Your task to perform on an android device: Open Google Chrome and open the bookmarks view Image 0: 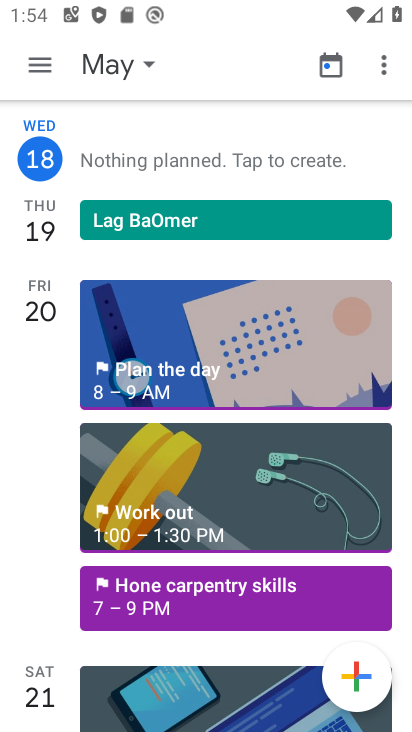
Step 0: press home button
Your task to perform on an android device: Open Google Chrome and open the bookmarks view Image 1: 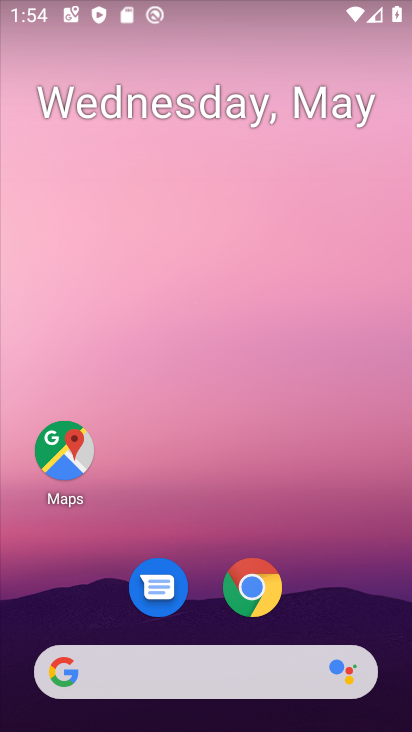
Step 1: click (267, 606)
Your task to perform on an android device: Open Google Chrome and open the bookmarks view Image 2: 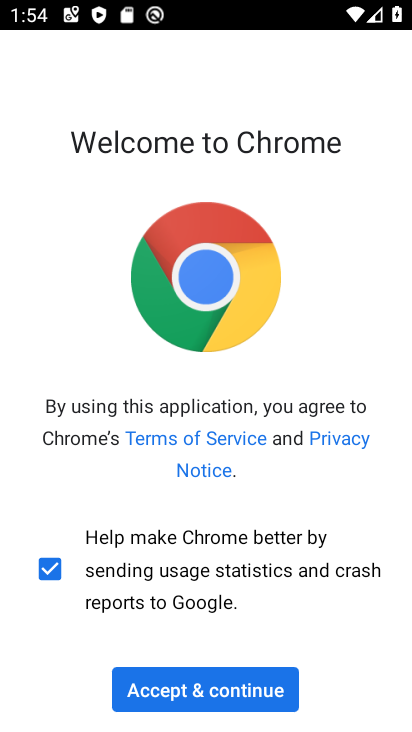
Step 2: click (208, 691)
Your task to perform on an android device: Open Google Chrome and open the bookmarks view Image 3: 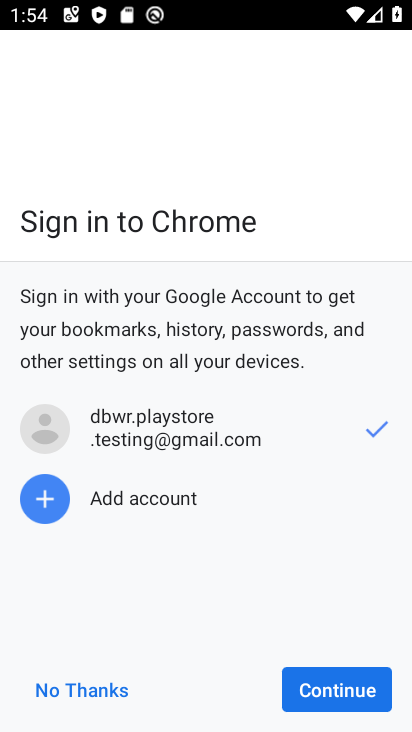
Step 3: click (318, 679)
Your task to perform on an android device: Open Google Chrome and open the bookmarks view Image 4: 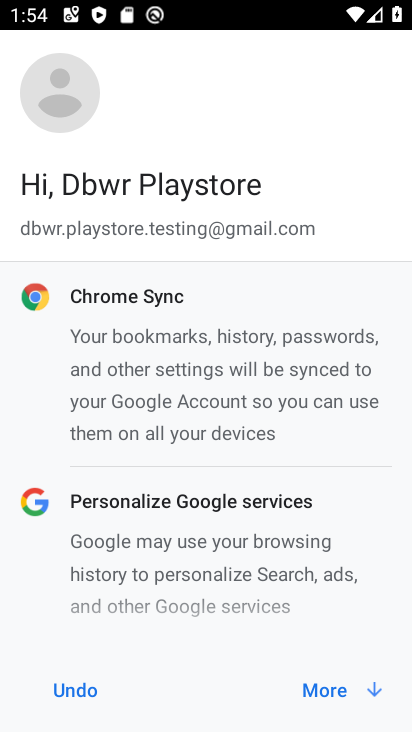
Step 4: click (318, 685)
Your task to perform on an android device: Open Google Chrome and open the bookmarks view Image 5: 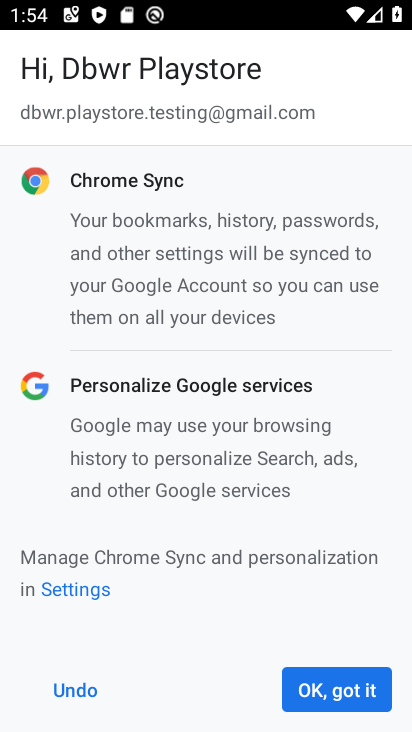
Step 5: click (320, 684)
Your task to perform on an android device: Open Google Chrome and open the bookmarks view Image 6: 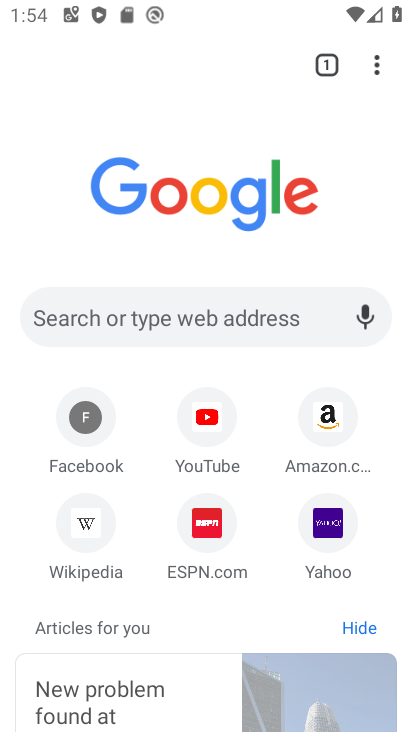
Step 6: task complete